Your task to perform on an android device: Search for razer blade on target, select the first entry, add it to the cart, then select checkout. Image 0: 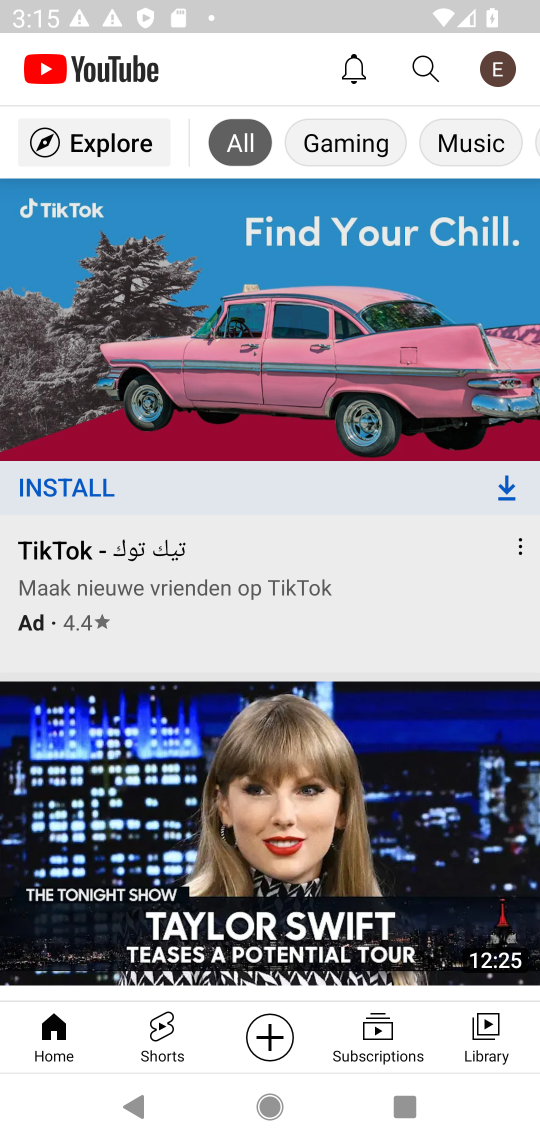
Step 0: press home button
Your task to perform on an android device: Search for razer blade on target, select the first entry, add it to the cart, then select checkout. Image 1: 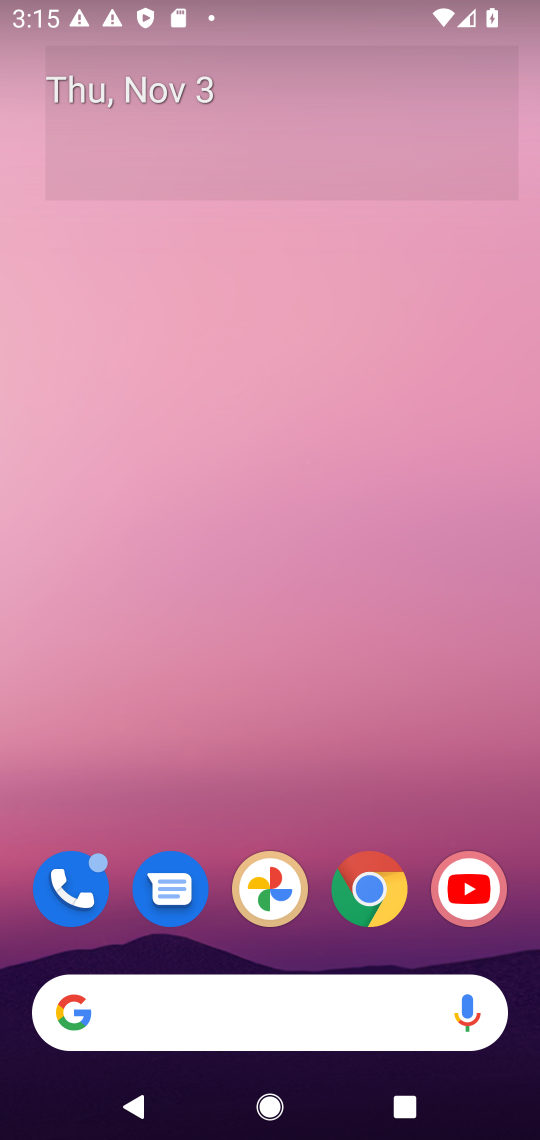
Step 1: drag from (184, 631) to (380, 17)
Your task to perform on an android device: Search for razer blade on target, select the first entry, add it to the cart, then select checkout. Image 2: 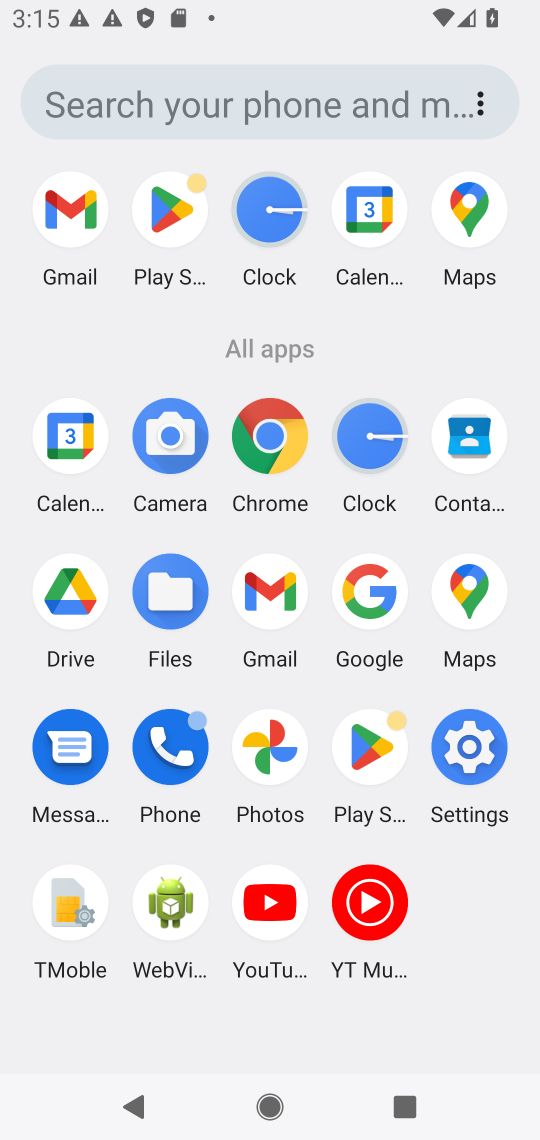
Step 2: click (277, 436)
Your task to perform on an android device: Search for razer blade on target, select the first entry, add it to the cart, then select checkout. Image 3: 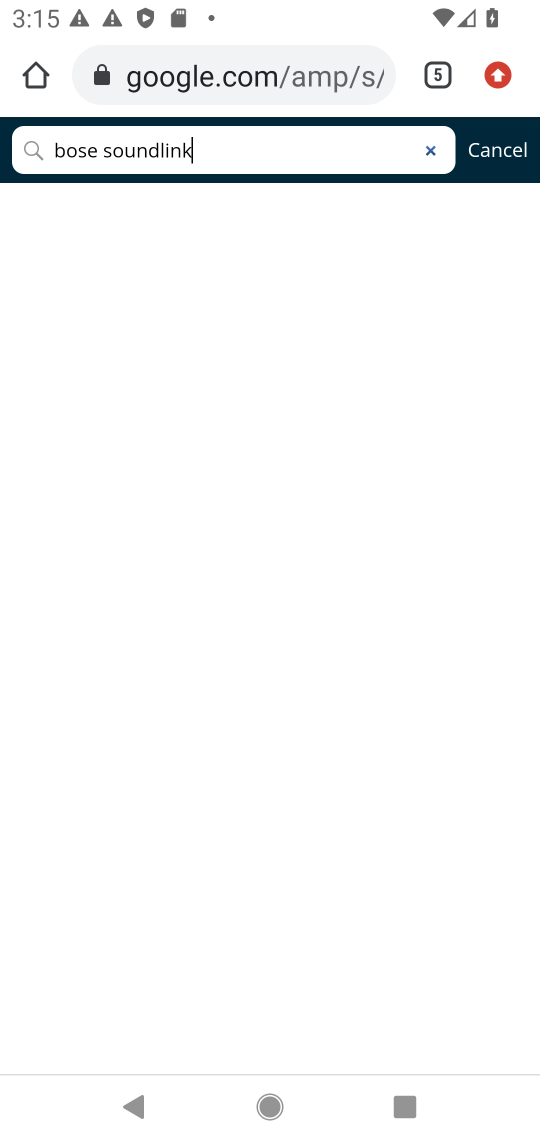
Step 3: click (434, 158)
Your task to perform on an android device: Search for razer blade on target, select the first entry, add it to the cart, then select checkout. Image 4: 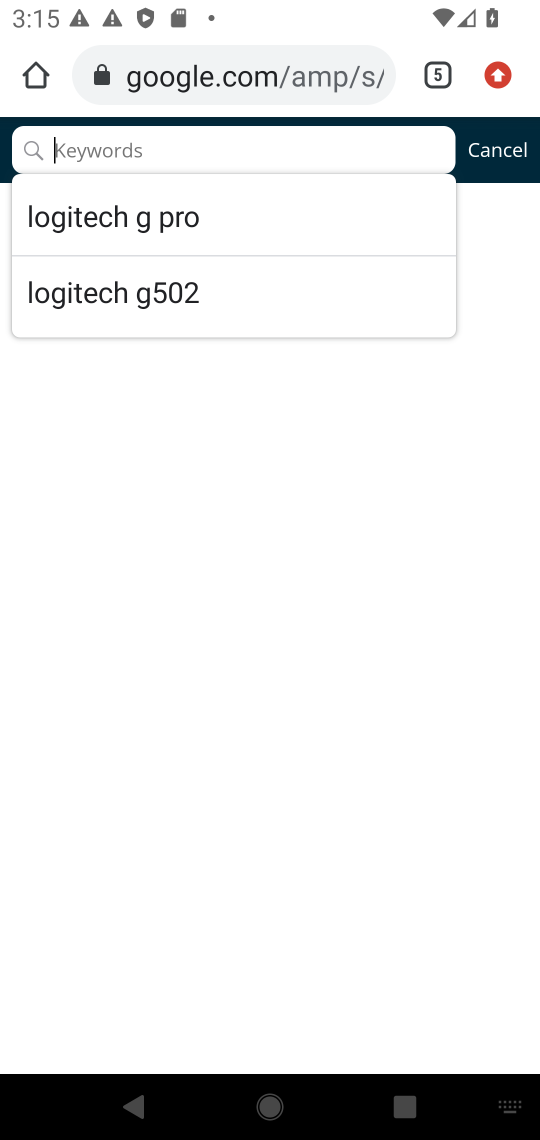
Step 4: click (443, 78)
Your task to perform on an android device: Search for razer blade on target, select the first entry, add it to the cart, then select checkout. Image 5: 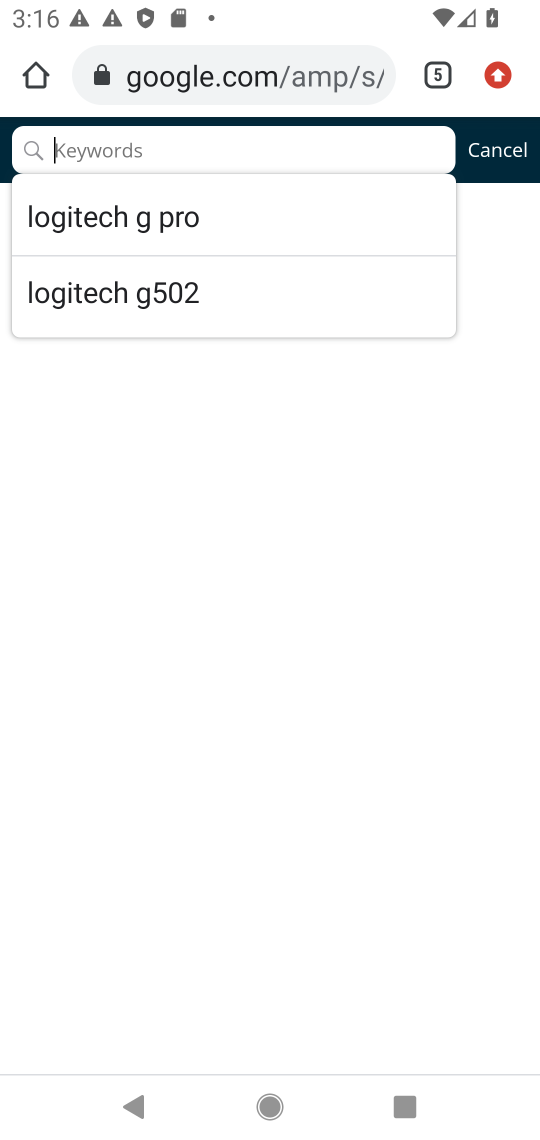
Step 5: click (434, 90)
Your task to perform on an android device: Search for razer blade on target, select the first entry, add it to the cart, then select checkout. Image 6: 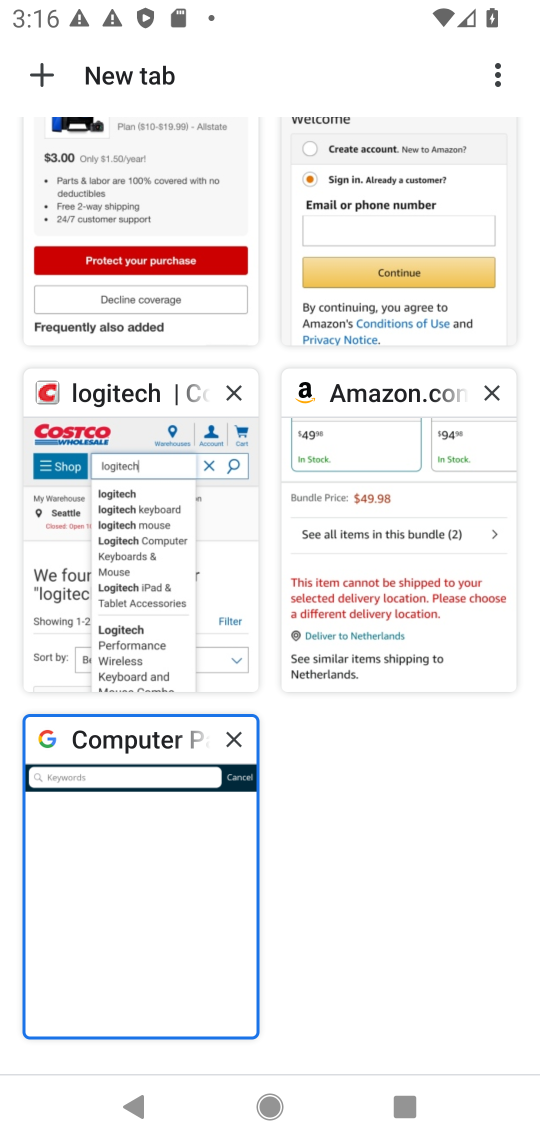
Step 6: click (26, 56)
Your task to perform on an android device: Search for razer blade on target, select the first entry, add it to the cart, then select checkout. Image 7: 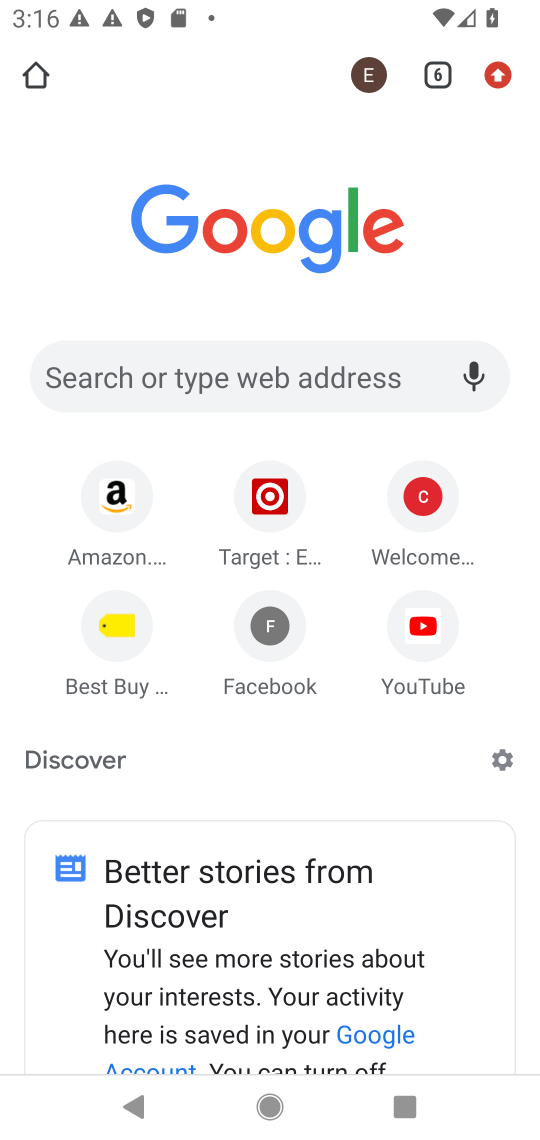
Step 7: click (158, 381)
Your task to perform on an android device: Search for razer blade on target, select the first entry, add it to the cart, then select checkout. Image 8: 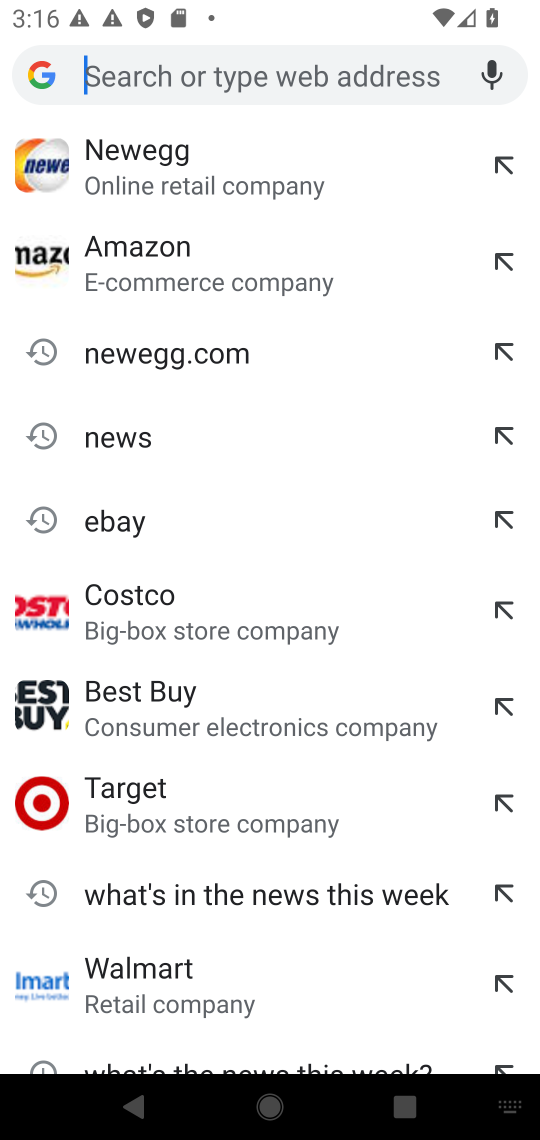
Step 8: type "target"
Your task to perform on an android device: Search for razer blade on target, select the first entry, add it to the cart, then select checkout. Image 9: 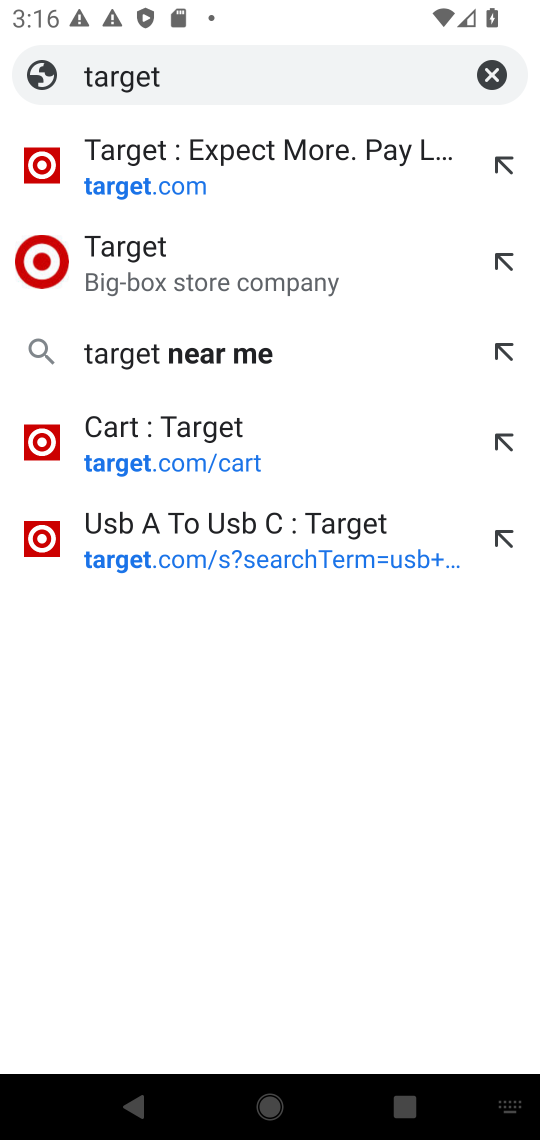
Step 9: click (145, 180)
Your task to perform on an android device: Search for razer blade on target, select the first entry, add it to the cart, then select checkout. Image 10: 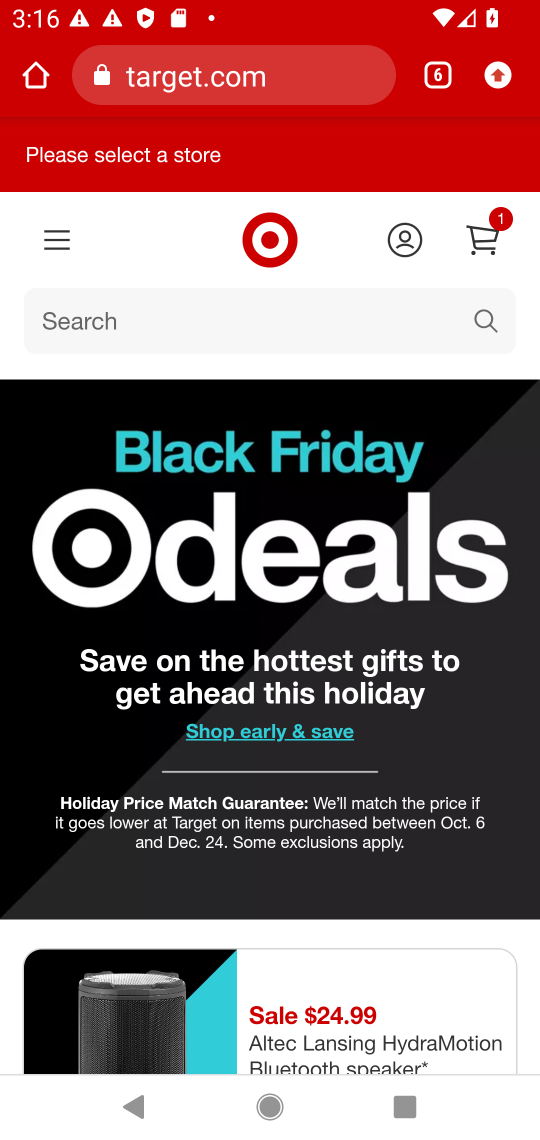
Step 10: drag from (388, 1030) to (482, 249)
Your task to perform on an android device: Search for razer blade on target, select the first entry, add it to the cart, then select checkout. Image 11: 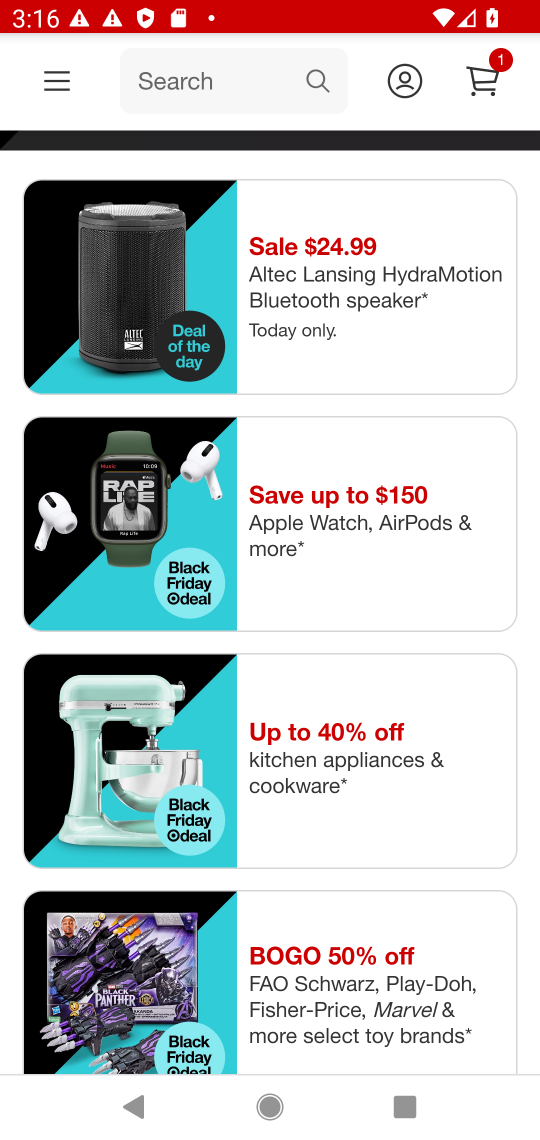
Step 11: drag from (409, 466) to (390, 1118)
Your task to perform on an android device: Search for razer blade on target, select the first entry, add it to the cart, then select checkout. Image 12: 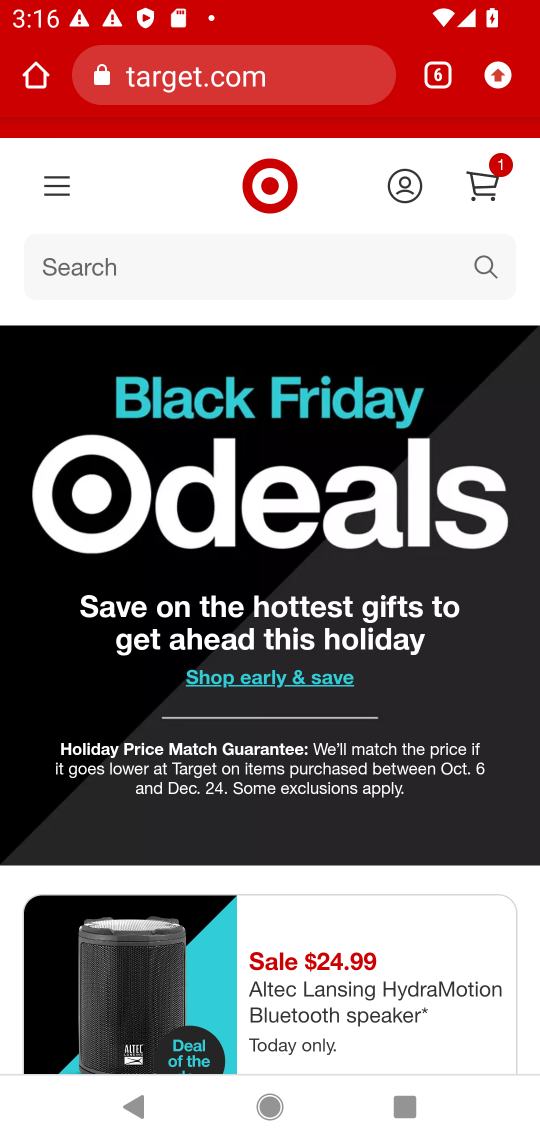
Step 12: click (158, 269)
Your task to perform on an android device: Search for razer blade on target, select the first entry, add it to the cart, then select checkout. Image 13: 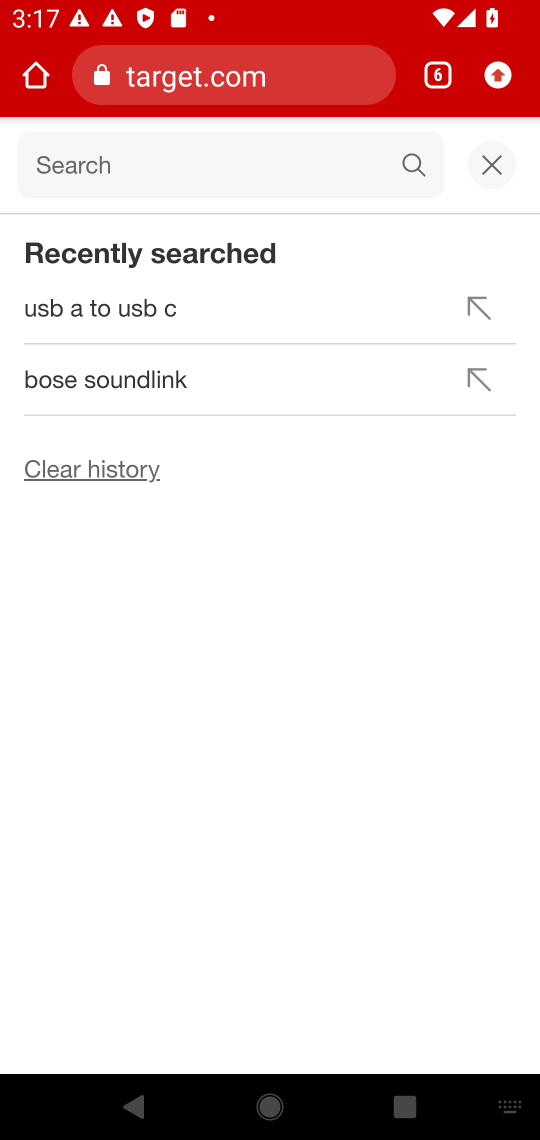
Step 13: click (118, 153)
Your task to perform on an android device: Search for razer blade on target, select the first entry, add it to the cart, then select checkout. Image 14: 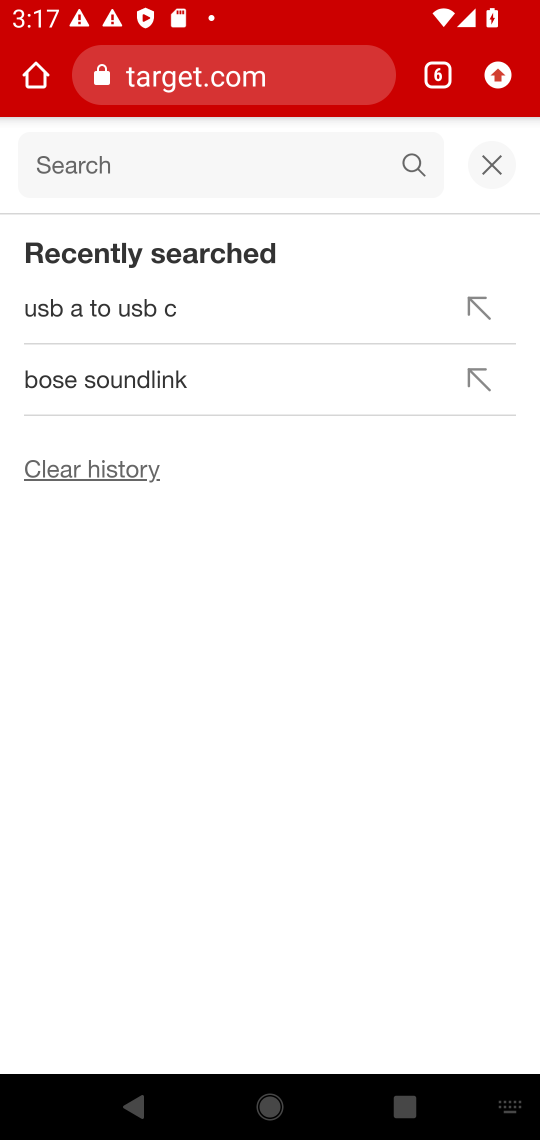
Step 14: click (142, 160)
Your task to perform on an android device: Search for razer blade on target, select the first entry, add it to the cart, then select checkout. Image 15: 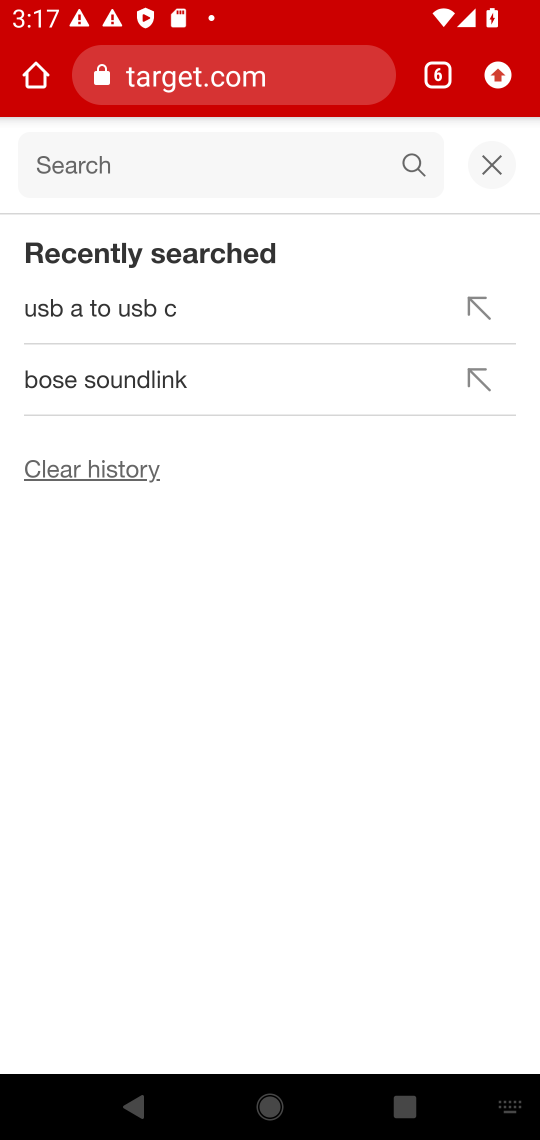
Step 15: click (100, 161)
Your task to perform on an android device: Search for razer blade on target, select the first entry, add it to the cart, then select checkout. Image 16: 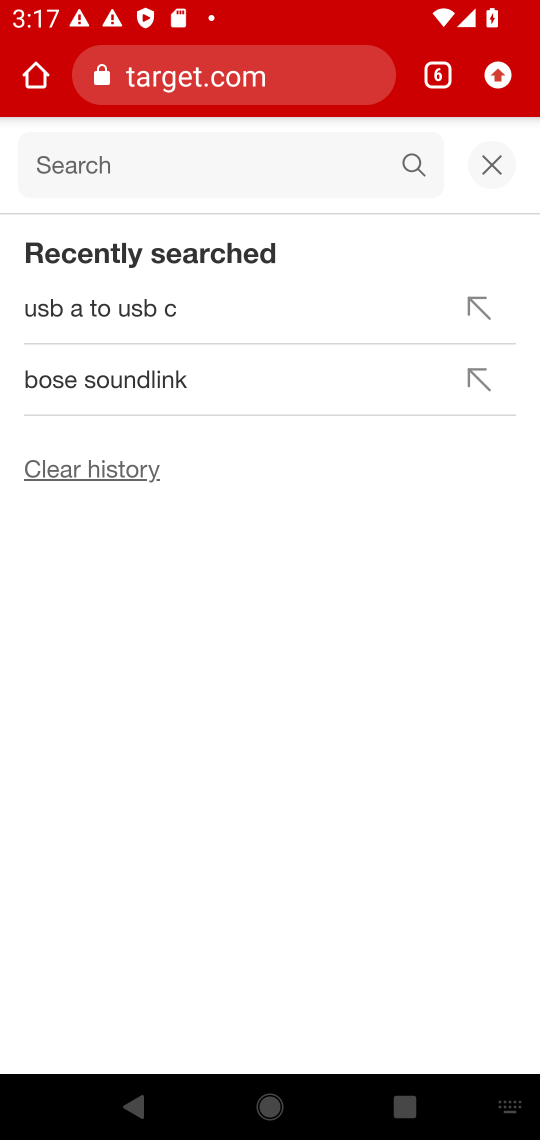
Step 16: type " razer blade"
Your task to perform on an android device: Search for razer blade on target, select the first entry, add it to the cart, then select checkout. Image 17: 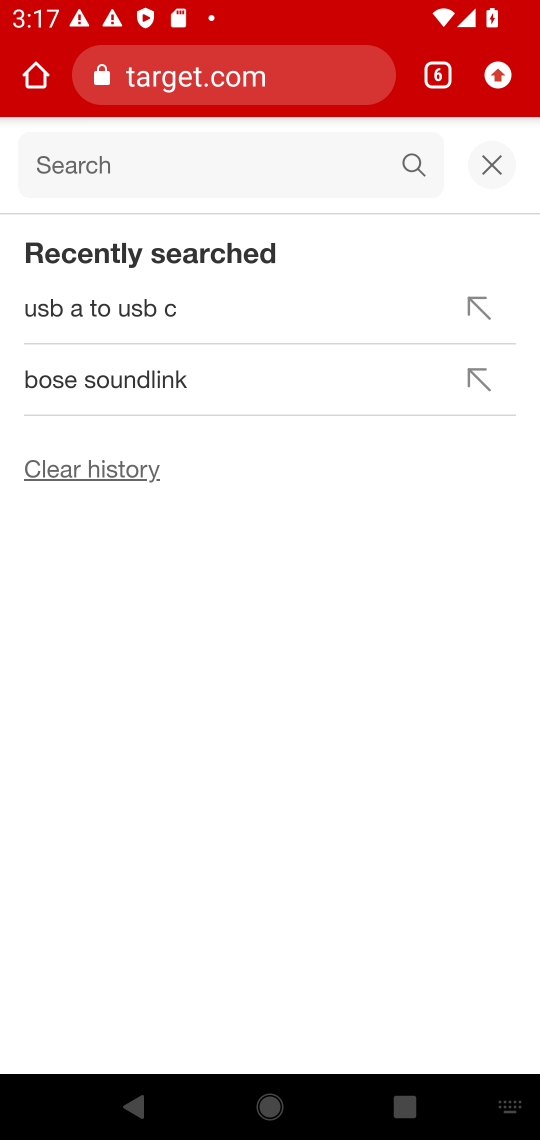
Step 17: click (306, 846)
Your task to perform on an android device: Search for razer blade on target, select the first entry, add it to the cart, then select checkout. Image 18: 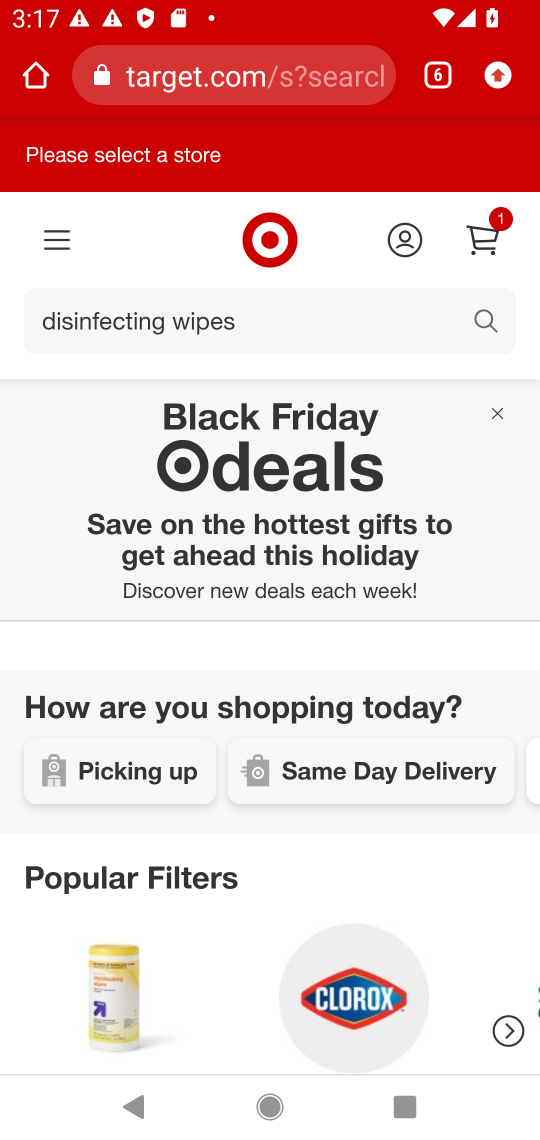
Step 18: click (319, 328)
Your task to perform on an android device: Search for razer blade on target, select the first entry, add it to the cart, then select checkout. Image 19: 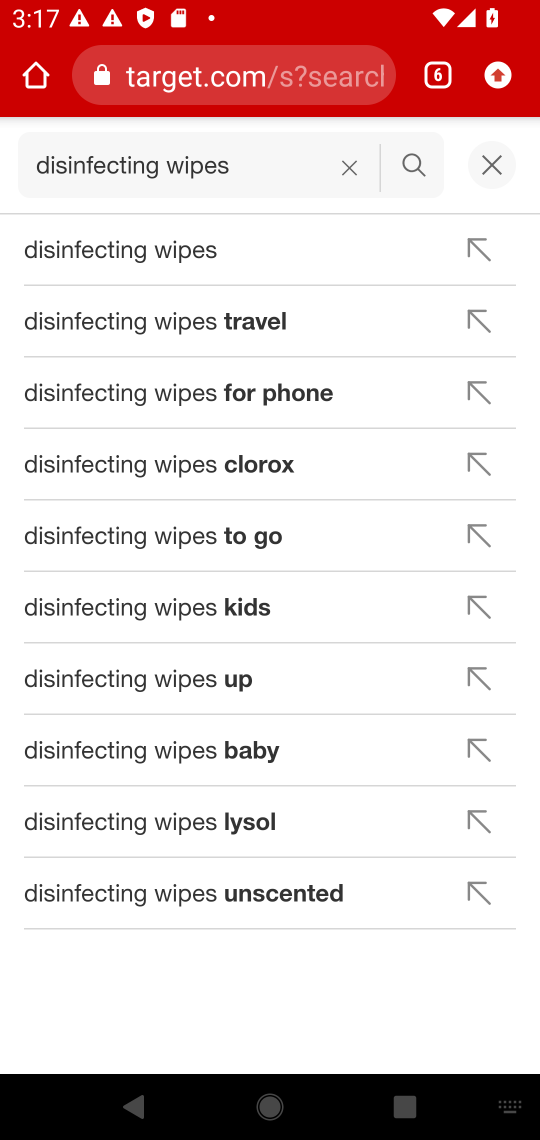
Step 19: click (480, 173)
Your task to perform on an android device: Search for razer blade on target, select the first entry, add it to the cart, then select checkout. Image 20: 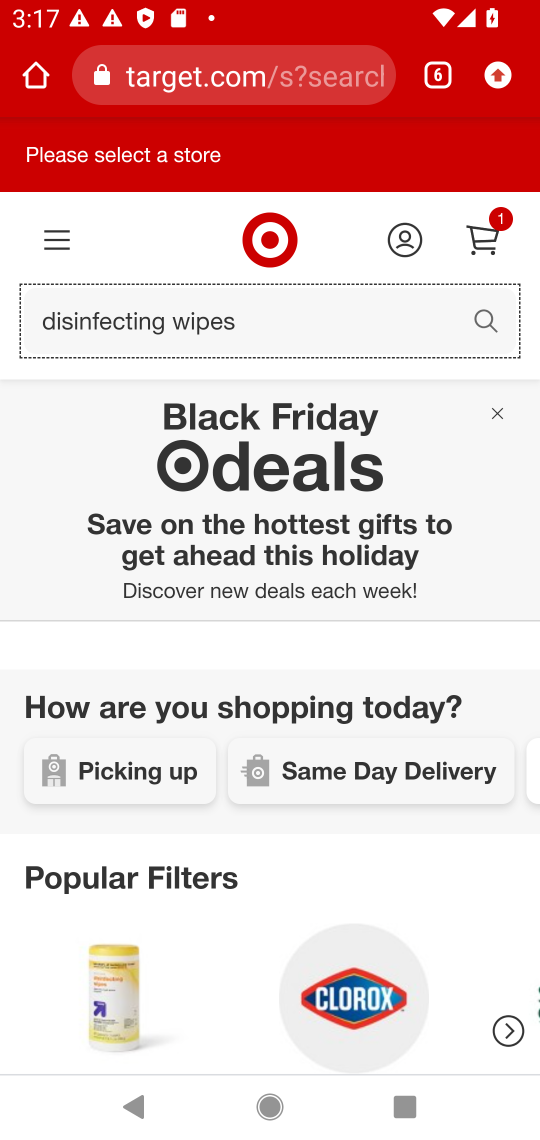
Step 20: click (335, 331)
Your task to perform on an android device: Search for razer blade on target, select the first entry, add it to the cart, then select checkout. Image 21: 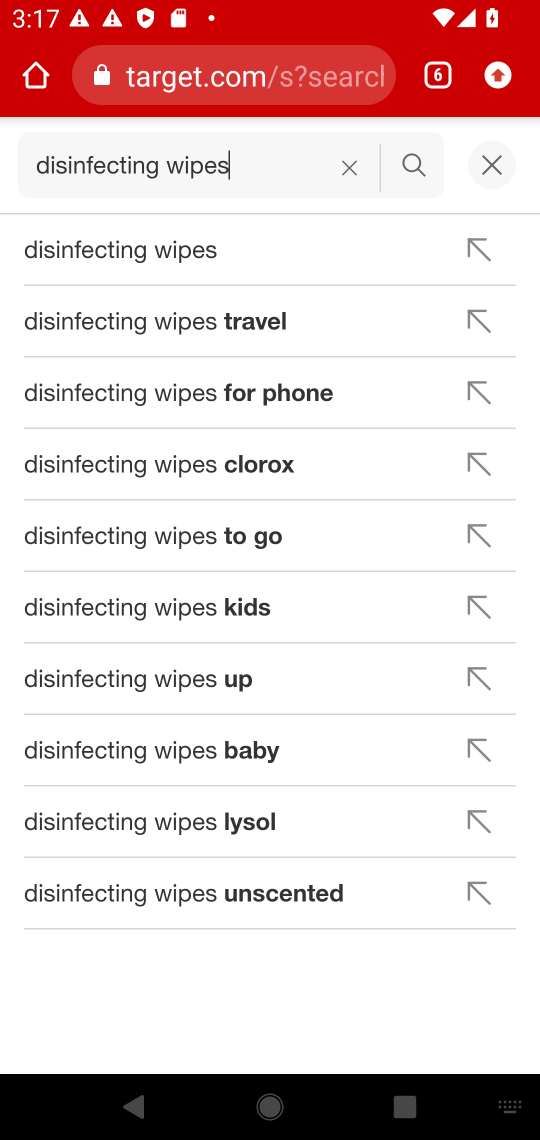
Step 21: click (492, 154)
Your task to perform on an android device: Search for razer blade on target, select the first entry, add it to the cart, then select checkout. Image 22: 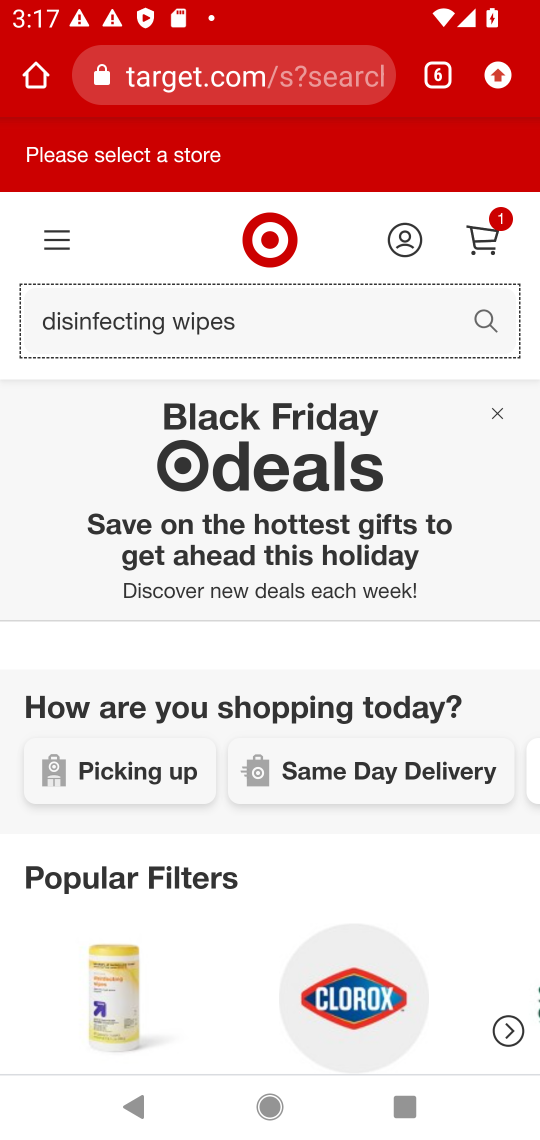
Step 22: click (325, 332)
Your task to perform on an android device: Search for razer blade on target, select the first entry, add it to the cart, then select checkout. Image 23: 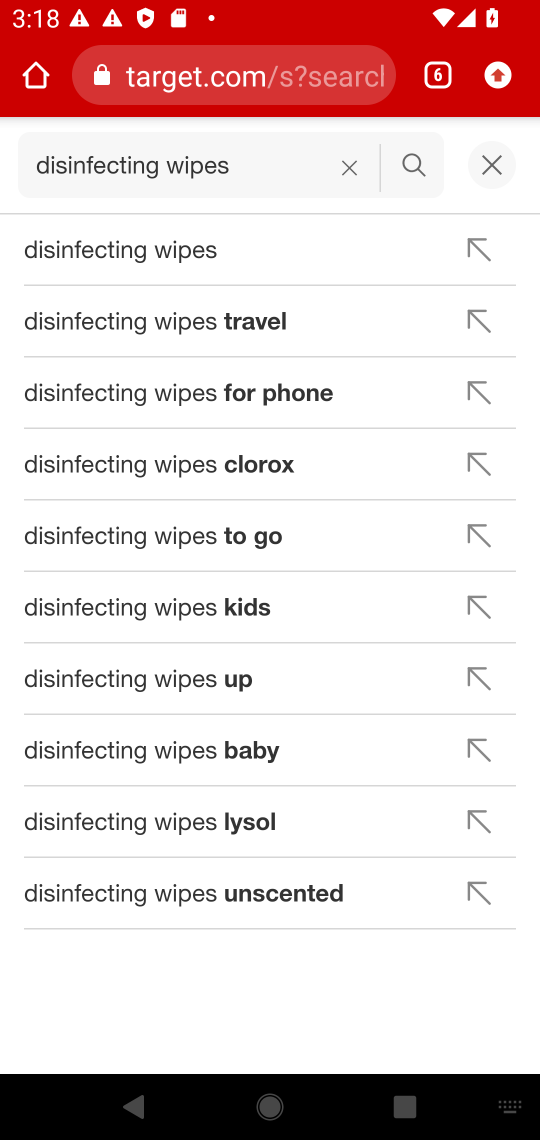
Step 23: click (500, 161)
Your task to perform on an android device: Search for razer blade on target, select the first entry, add it to the cart, then select checkout. Image 24: 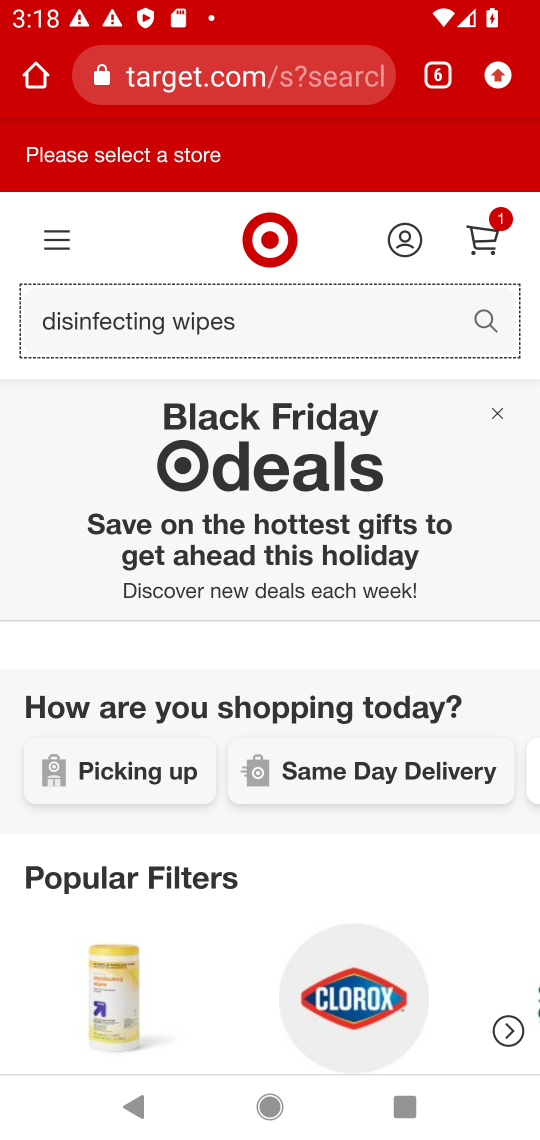
Step 24: click (256, 330)
Your task to perform on an android device: Search for razer blade on target, select the first entry, add it to the cart, then select checkout. Image 25: 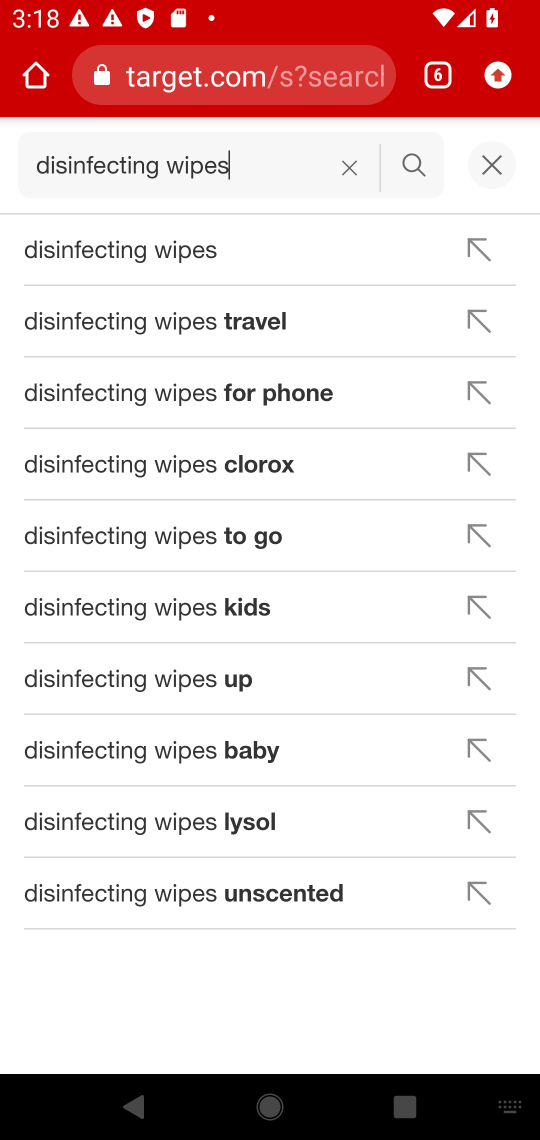
Step 25: click (495, 156)
Your task to perform on an android device: Search for razer blade on target, select the first entry, add it to the cart, then select checkout. Image 26: 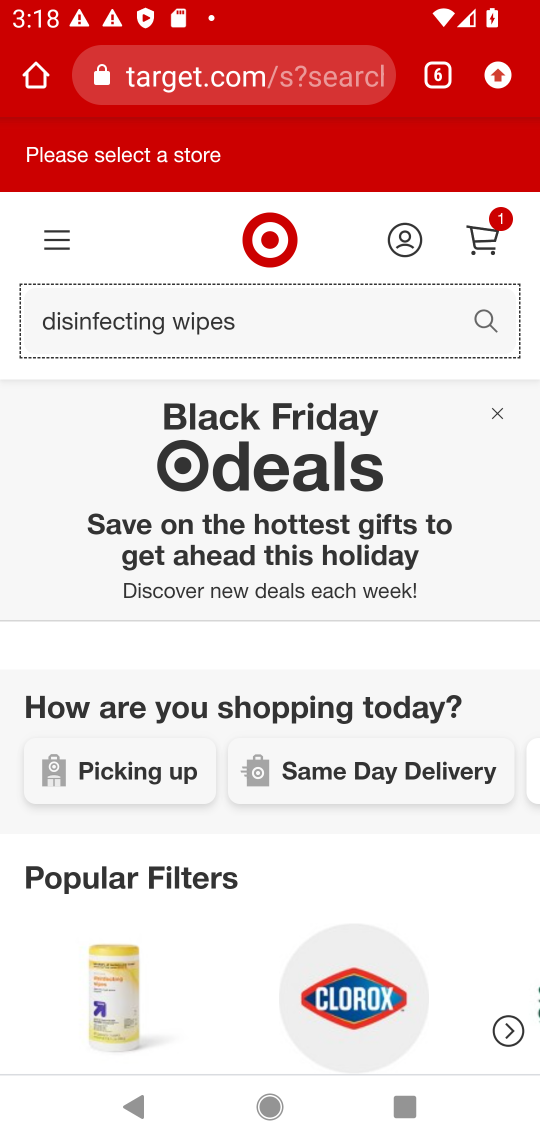
Step 26: press back button
Your task to perform on an android device: Search for razer blade on target, select the first entry, add it to the cart, then select checkout. Image 27: 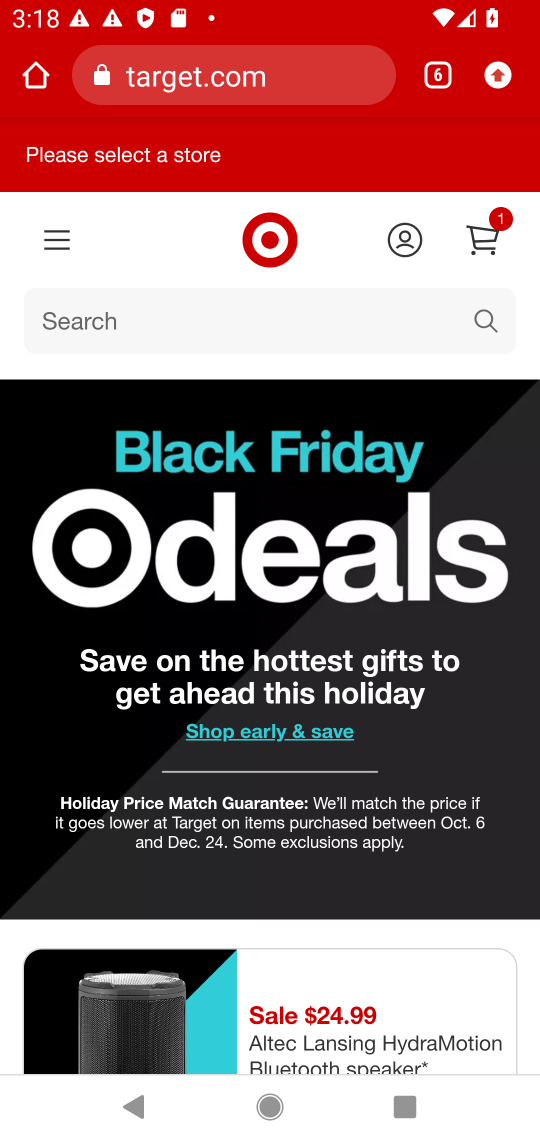
Step 27: click (171, 307)
Your task to perform on an android device: Search for razer blade on target, select the first entry, add it to the cart, then select checkout. Image 28: 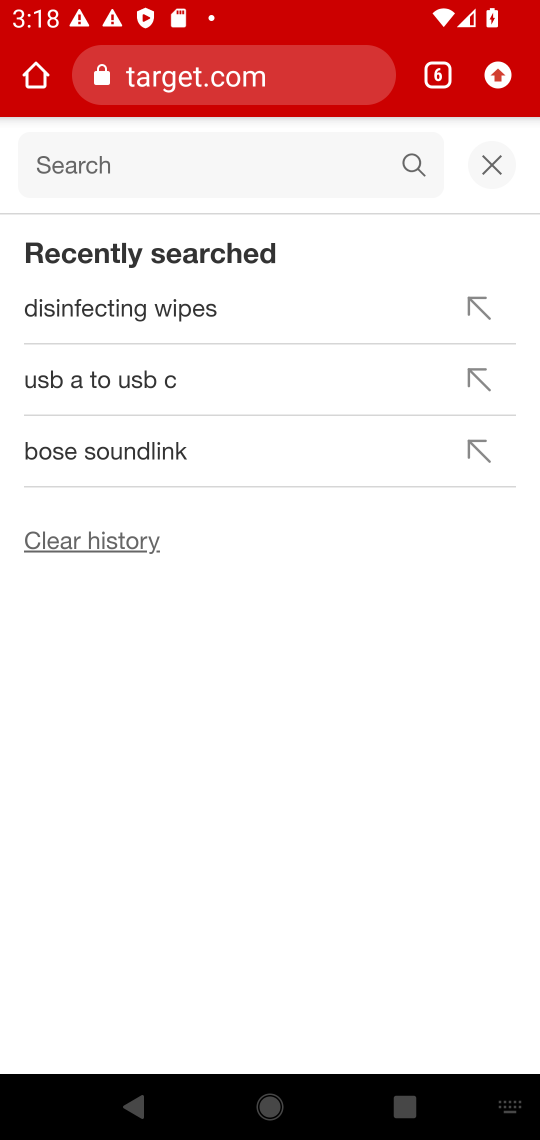
Step 28: type "razer blade"
Your task to perform on an android device: Search for razer blade on target, select the first entry, add it to the cart, then select checkout. Image 29: 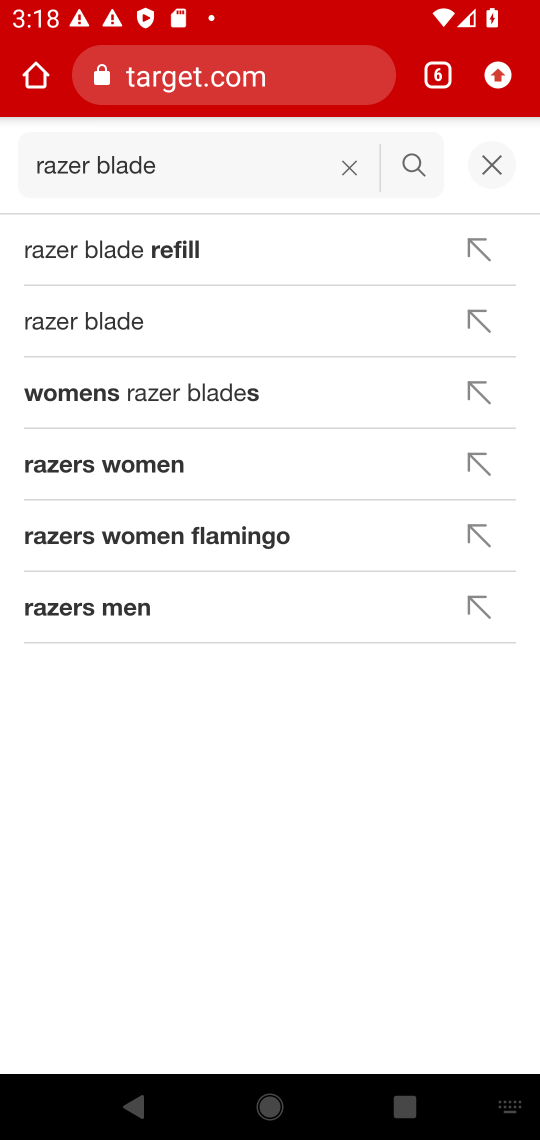
Step 29: click (118, 325)
Your task to perform on an android device: Search for razer blade on target, select the first entry, add it to the cart, then select checkout. Image 30: 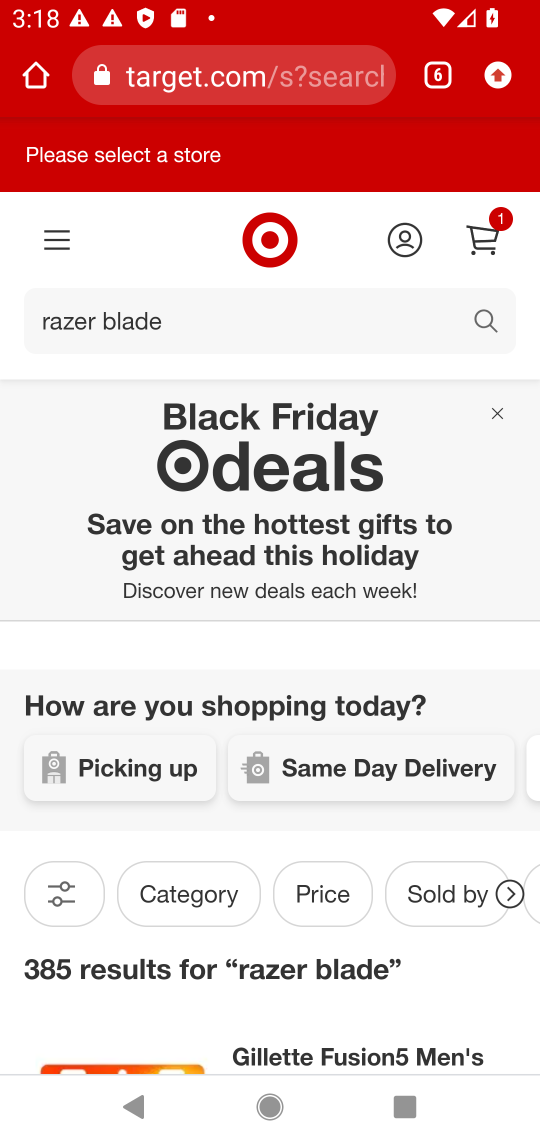
Step 30: drag from (275, 950) to (368, 332)
Your task to perform on an android device: Search for razer blade on target, select the first entry, add it to the cart, then select checkout. Image 31: 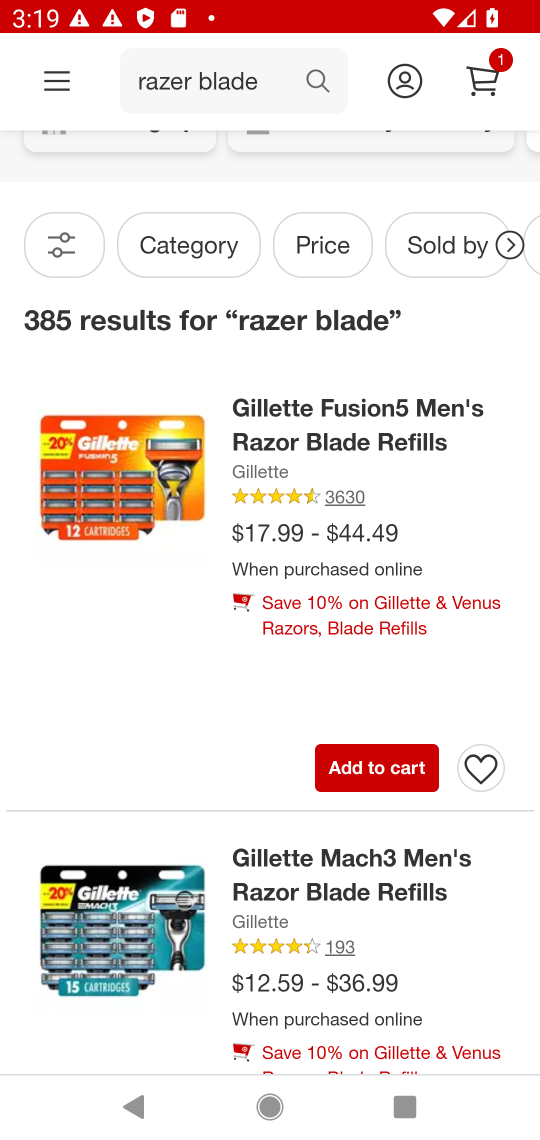
Step 31: click (375, 764)
Your task to perform on an android device: Search for razer blade on target, select the first entry, add it to the cart, then select checkout. Image 32: 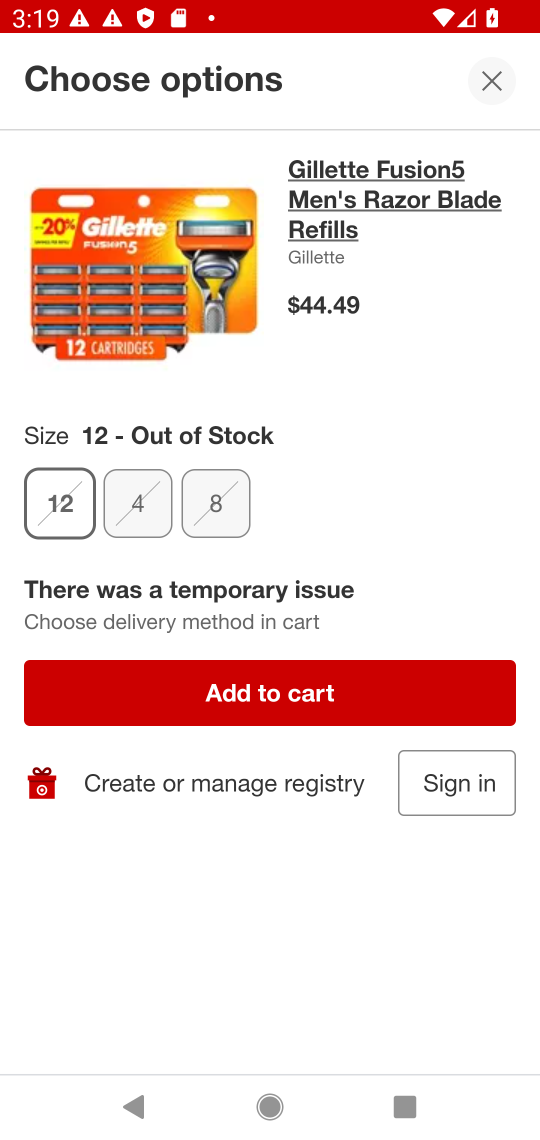
Step 32: click (318, 690)
Your task to perform on an android device: Search for razer blade on target, select the first entry, add it to the cart, then select checkout. Image 33: 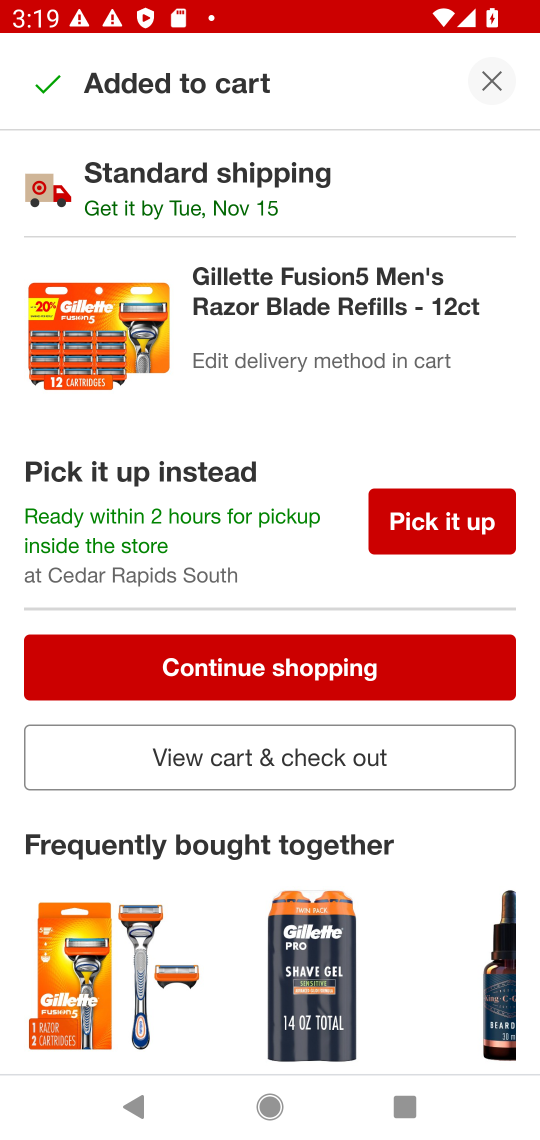
Step 33: click (262, 751)
Your task to perform on an android device: Search for razer blade on target, select the first entry, add it to the cart, then select checkout. Image 34: 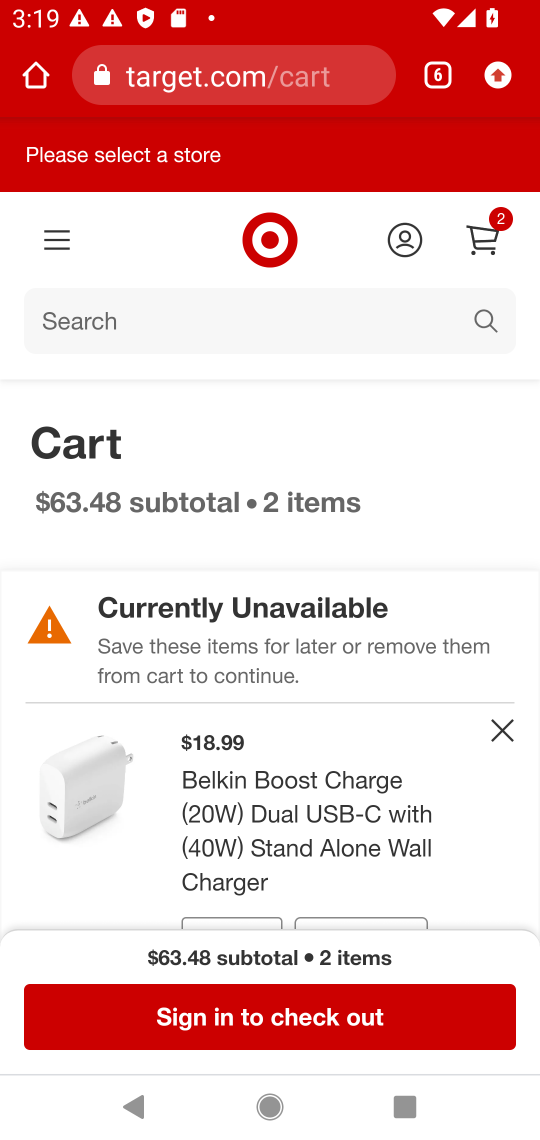
Step 34: task complete